Your task to perform on an android device: see tabs open on other devices in the chrome app Image 0: 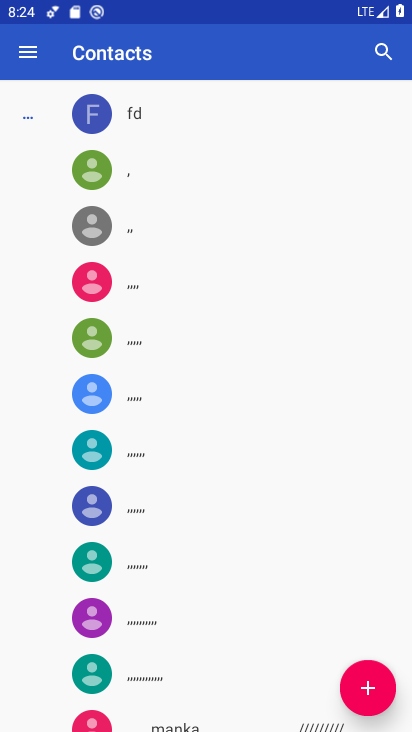
Step 0: press home button
Your task to perform on an android device: see tabs open on other devices in the chrome app Image 1: 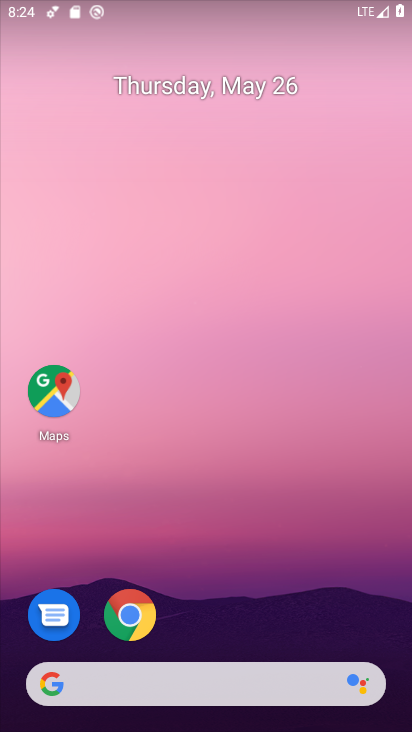
Step 1: click (126, 604)
Your task to perform on an android device: see tabs open on other devices in the chrome app Image 2: 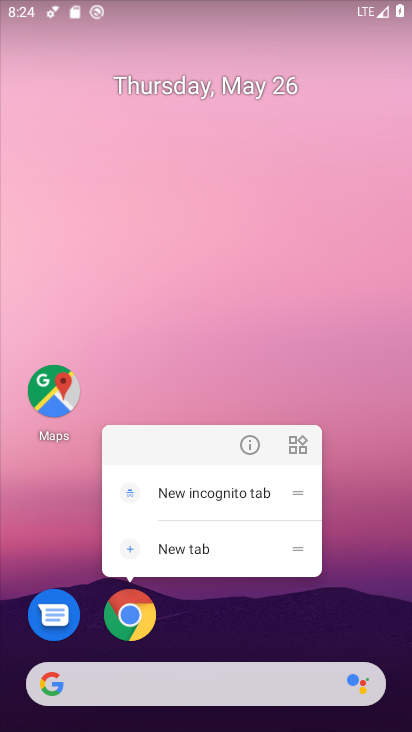
Step 2: click (124, 609)
Your task to perform on an android device: see tabs open on other devices in the chrome app Image 3: 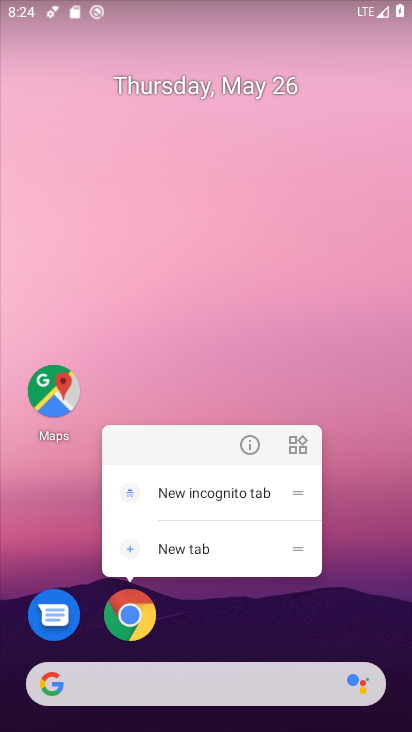
Step 3: click (124, 609)
Your task to perform on an android device: see tabs open on other devices in the chrome app Image 4: 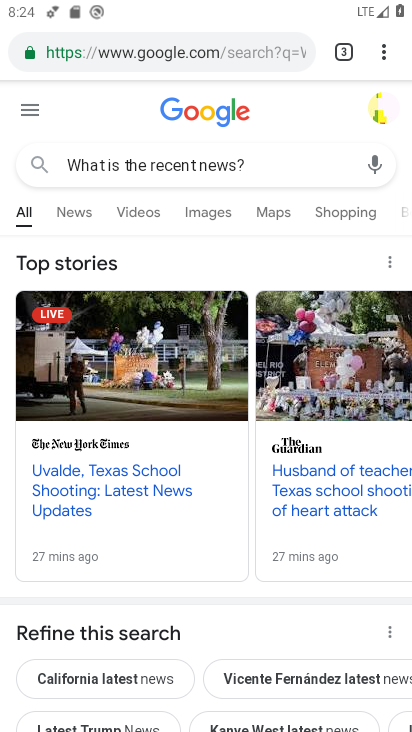
Step 4: click (392, 58)
Your task to perform on an android device: see tabs open on other devices in the chrome app Image 5: 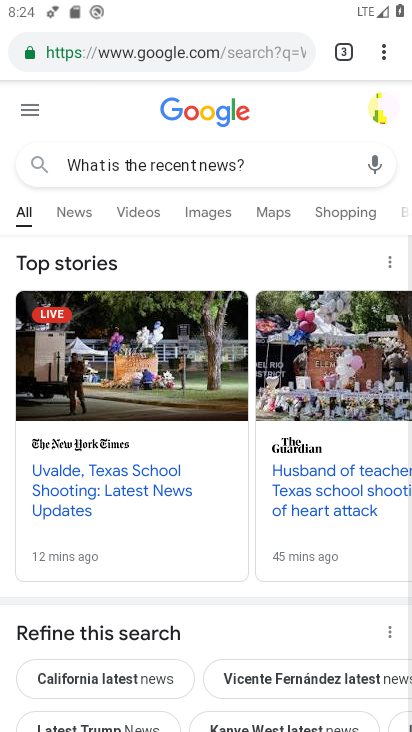
Step 5: click (381, 51)
Your task to perform on an android device: see tabs open on other devices in the chrome app Image 6: 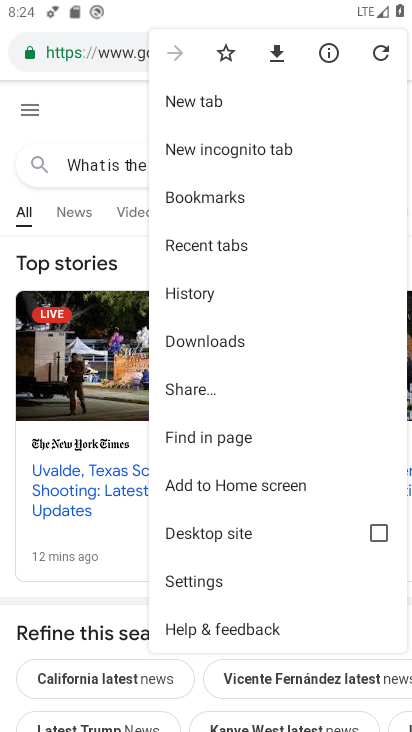
Step 6: drag from (250, 523) to (284, 339)
Your task to perform on an android device: see tabs open on other devices in the chrome app Image 7: 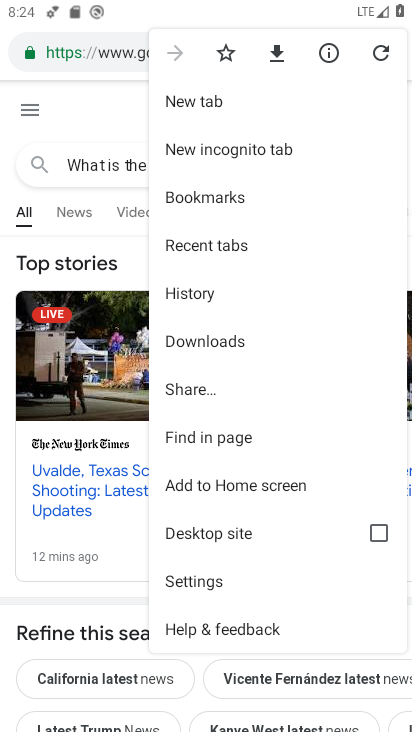
Step 7: click (205, 99)
Your task to perform on an android device: see tabs open on other devices in the chrome app Image 8: 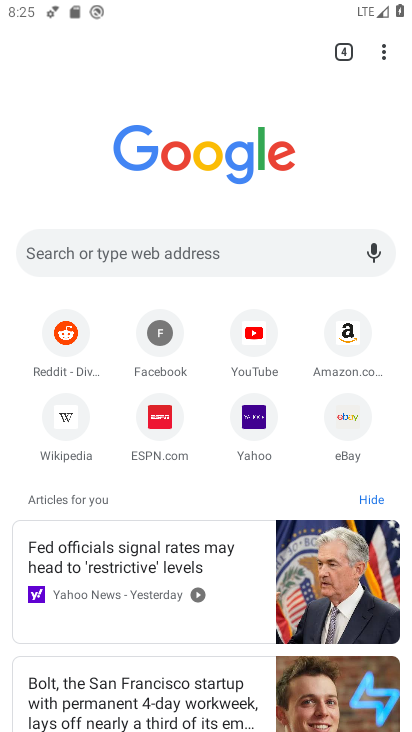
Step 8: task complete